Your task to perform on an android device: toggle data saver in the chrome app Image 0: 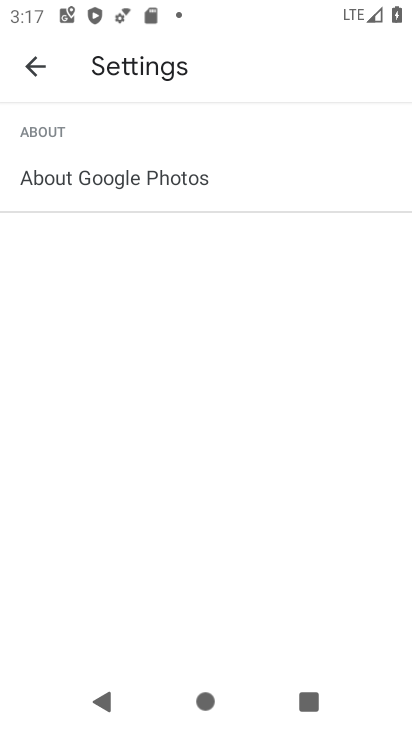
Step 0: press home button
Your task to perform on an android device: toggle data saver in the chrome app Image 1: 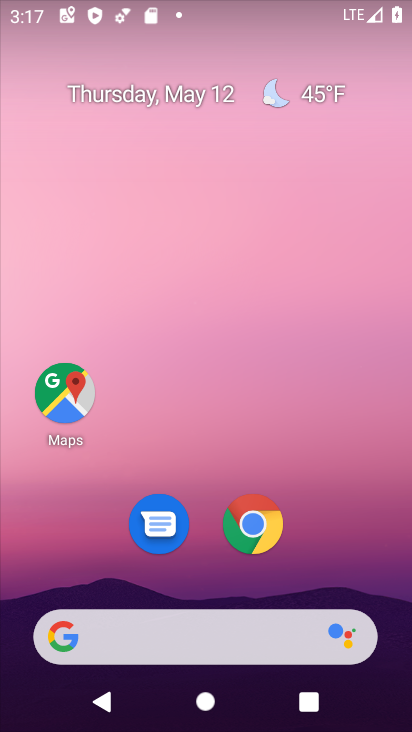
Step 1: click (243, 523)
Your task to perform on an android device: toggle data saver in the chrome app Image 2: 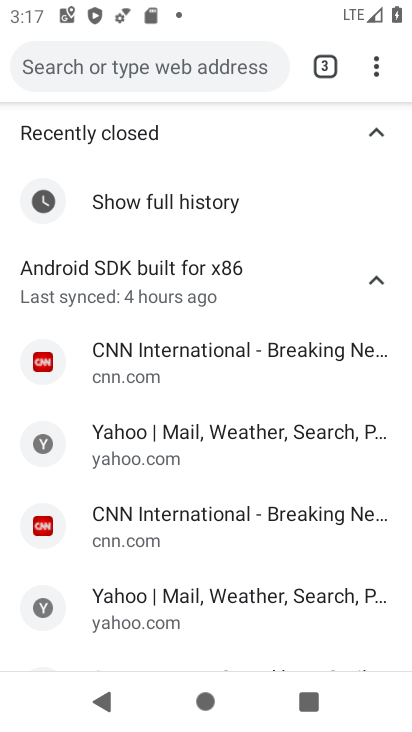
Step 2: click (371, 61)
Your task to perform on an android device: toggle data saver in the chrome app Image 3: 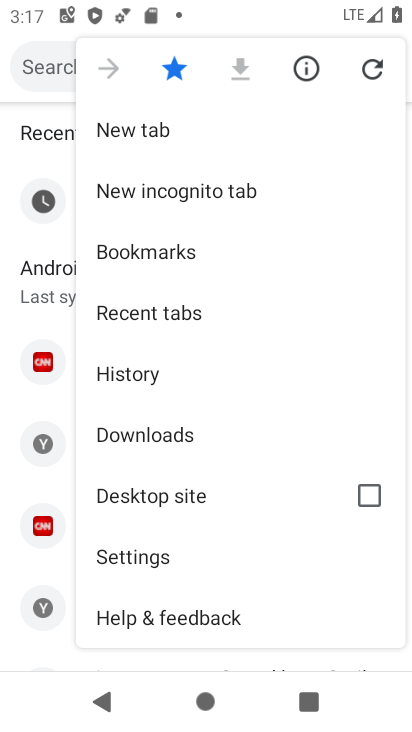
Step 3: click (179, 552)
Your task to perform on an android device: toggle data saver in the chrome app Image 4: 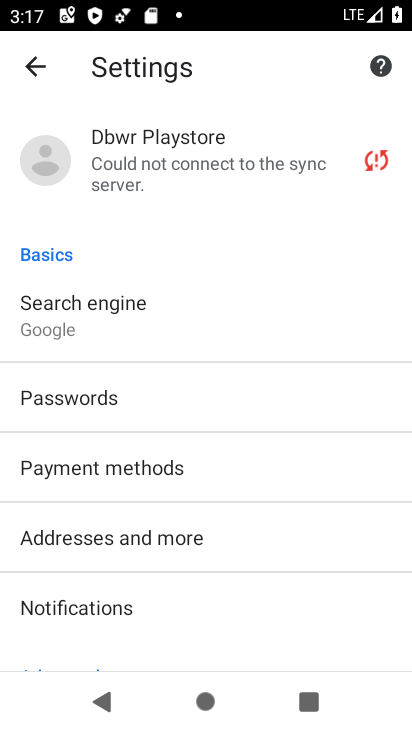
Step 4: drag from (211, 591) to (200, 8)
Your task to perform on an android device: toggle data saver in the chrome app Image 5: 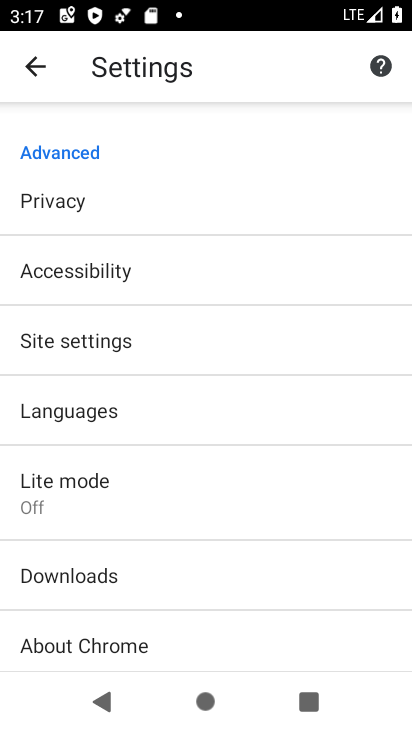
Step 5: click (147, 490)
Your task to perform on an android device: toggle data saver in the chrome app Image 6: 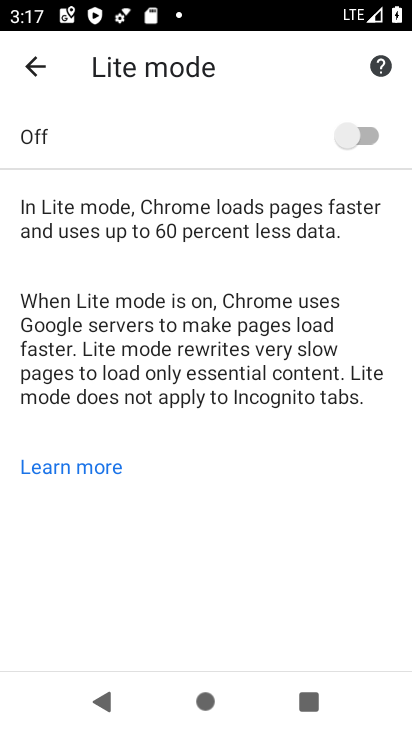
Step 6: click (369, 123)
Your task to perform on an android device: toggle data saver in the chrome app Image 7: 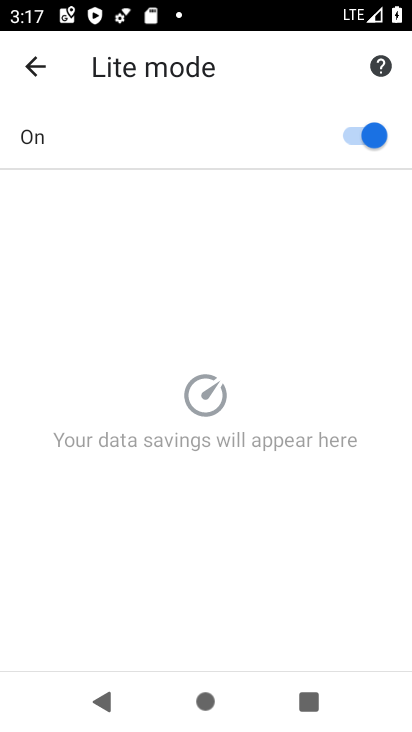
Step 7: task complete